Your task to perform on an android device: Go to battery settings Image 0: 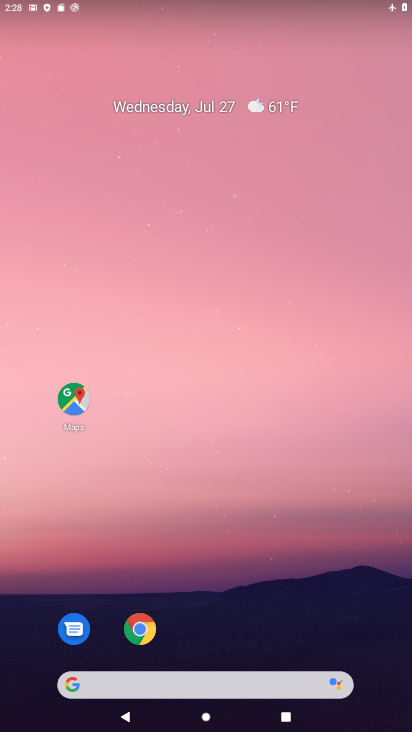
Step 0: drag from (253, 563) to (313, 76)
Your task to perform on an android device: Go to battery settings Image 1: 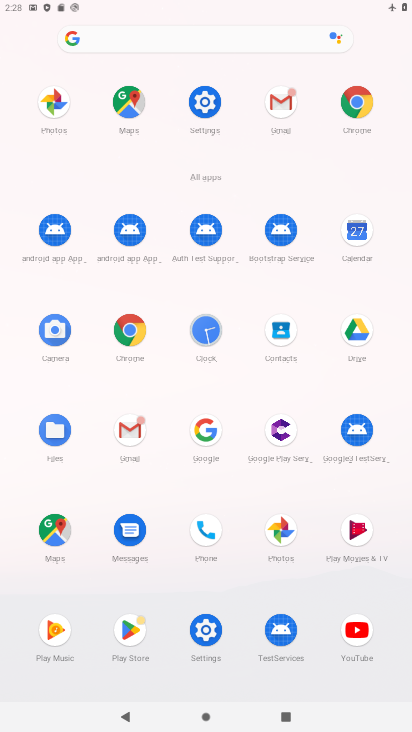
Step 1: click (215, 631)
Your task to perform on an android device: Go to battery settings Image 2: 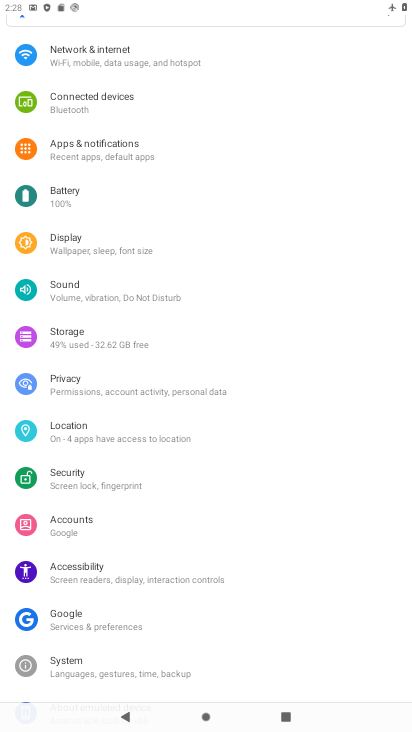
Step 2: click (63, 198)
Your task to perform on an android device: Go to battery settings Image 3: 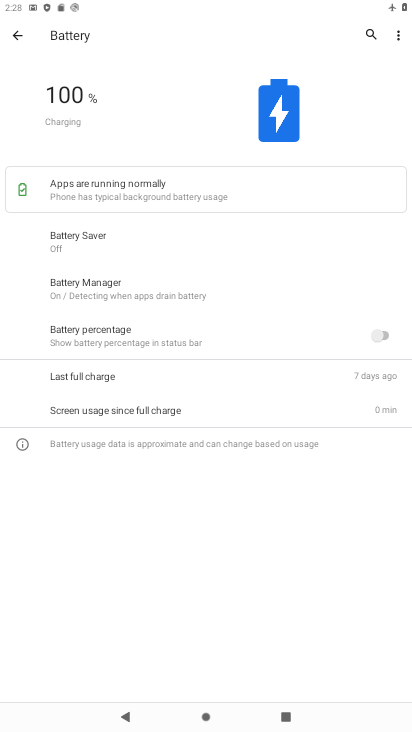
Step 3: task complete